Your task to perform on an android device: Show me popular videos on Youtube Image 0: 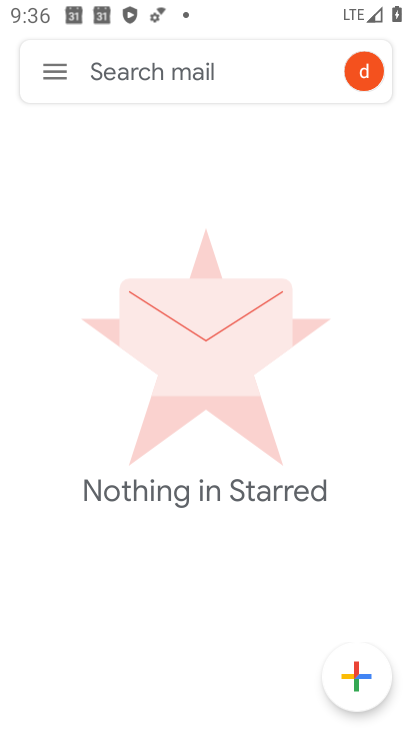
Step 0: press home button
Your task to perform on an android device: Show me popular videos on Youtube Image 1: 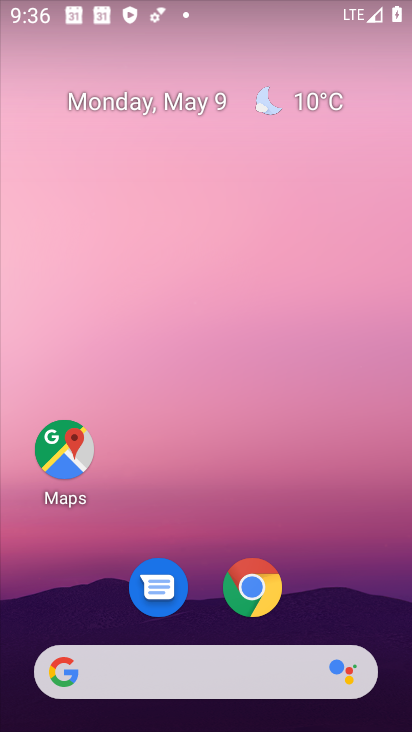
Step 1: drag from (314, 583) to (263, 159)
Your task to perform on an android device: Show me popular videos on Youtube Image 2: 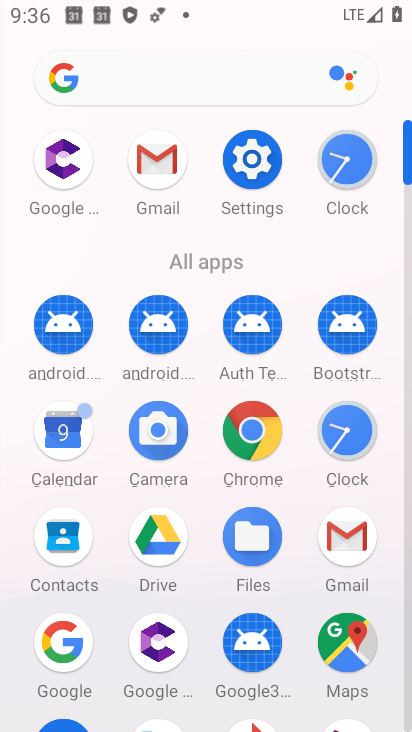
Step 2: drag from (196, 276) to (182, 6)
Your task to perform on an android device: Show me popular videos on Youtube Image 3: 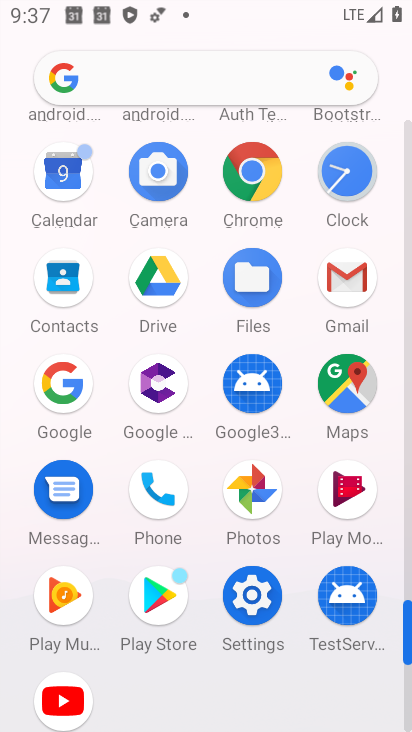
Step 3: click (72, 692)
Your task to perform on an android device: Show me popular videos on Youtube Image 4: 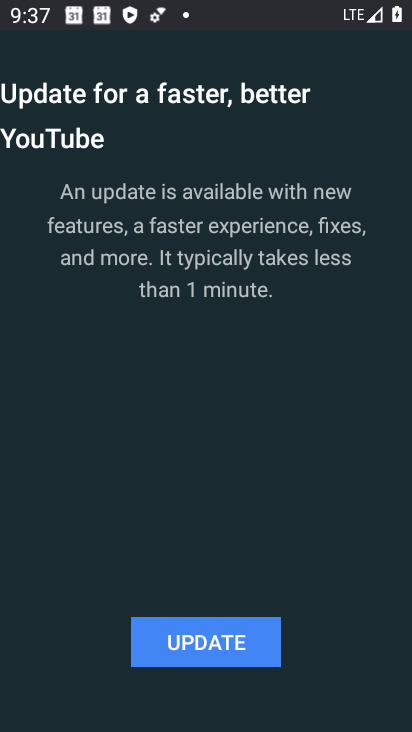
Step 4: click (247, 637)
Your task to perform on an android device: Show me popular videos on Youtube Image 5: 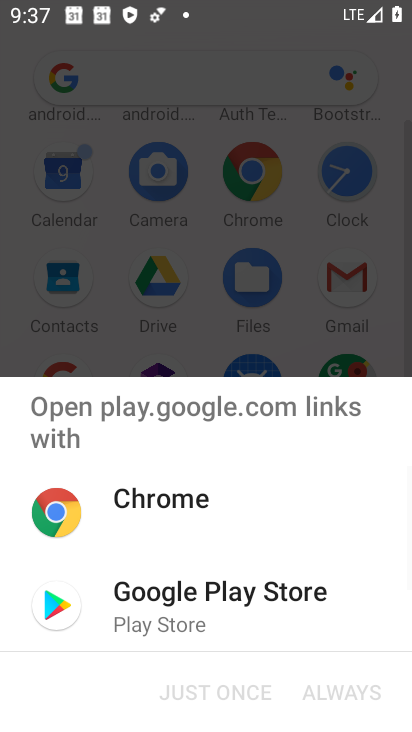
Step 5: click (206, 608)
Your task to perform on an android device: Show me popular videos on Youtube Image 6: 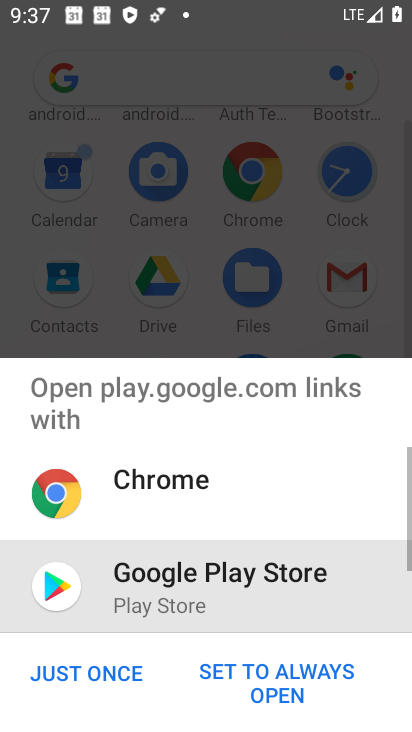
Step 6: click (116, 671)
Your task to perform on an android device: Show me popular videos on Youtube Image 7: 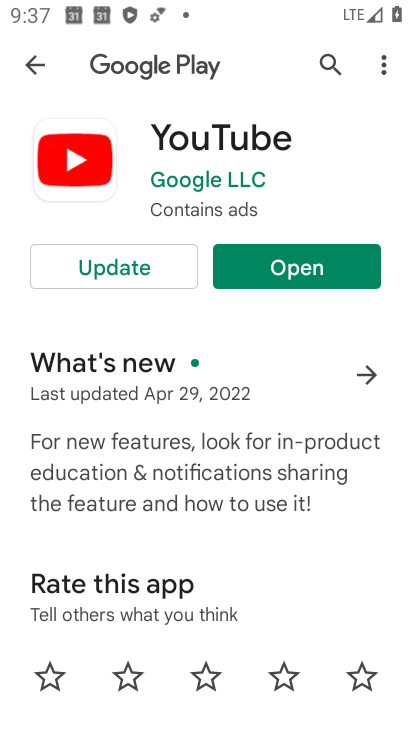
Step 7: click (126, 256)
Your task to perform on an android device: Show me popular videos on Youtube Image 8: 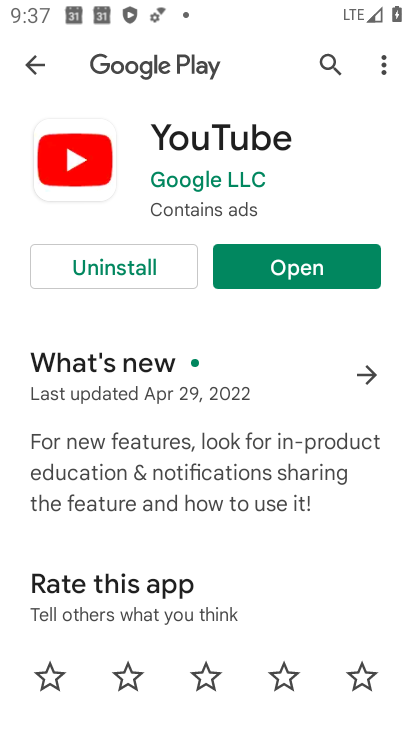
Step 8: click (289, 272)
Your task to perform on an android device: Show me popular videos on Youtube Image 9: 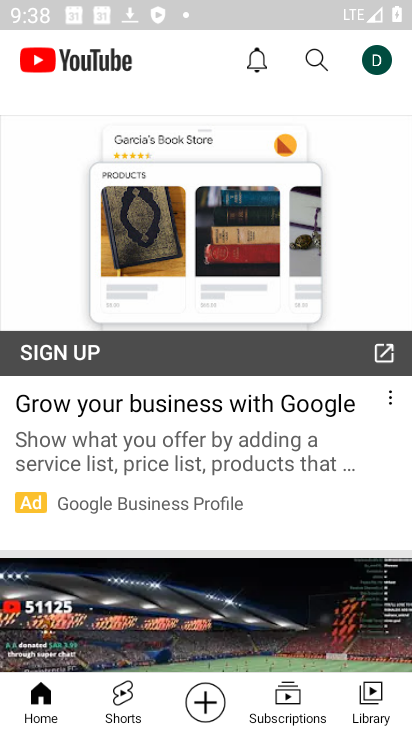
Step 9: drag from (118, 359) to (131, 489)
Your task to perform on an android device: Show me popular videos on Youtube Image 10: 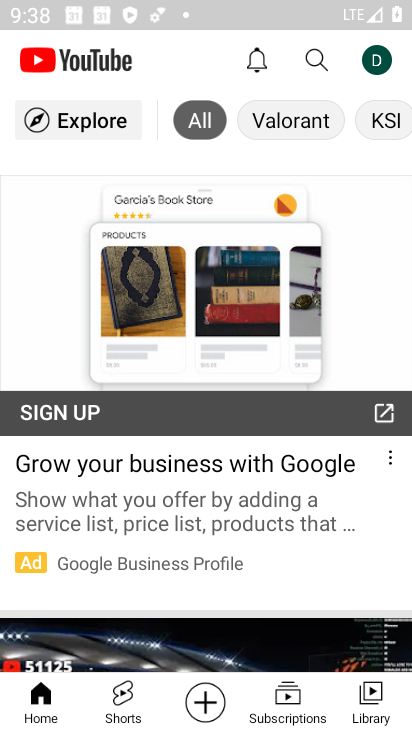
Step 10: click (75, 120)
Your task to perform on an android device: Show me popular videos on Youtube Image 11: 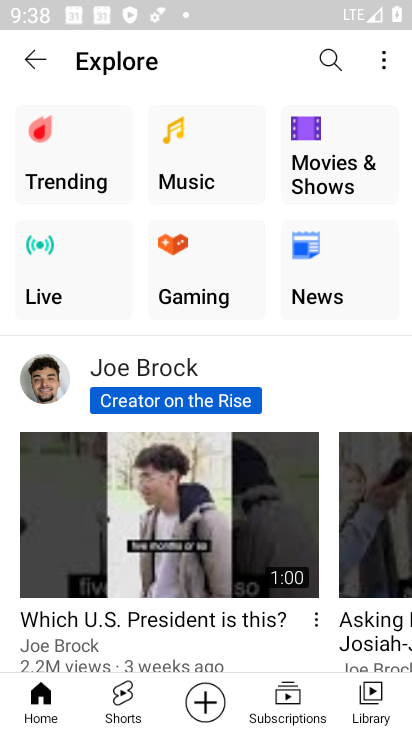
Step 11: click (92, 157)
Your task to perform on an android device: Show me popular videos on Youtube Image 12: 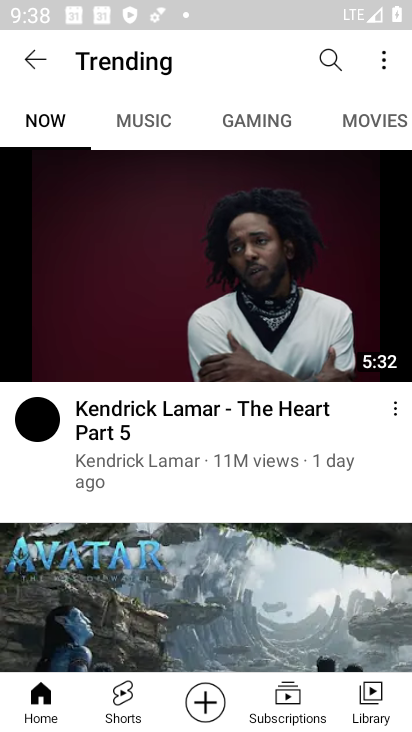
Step 12: task complete